Your task to perform on an android device: turn smart compose on in the gmail app Image 0: 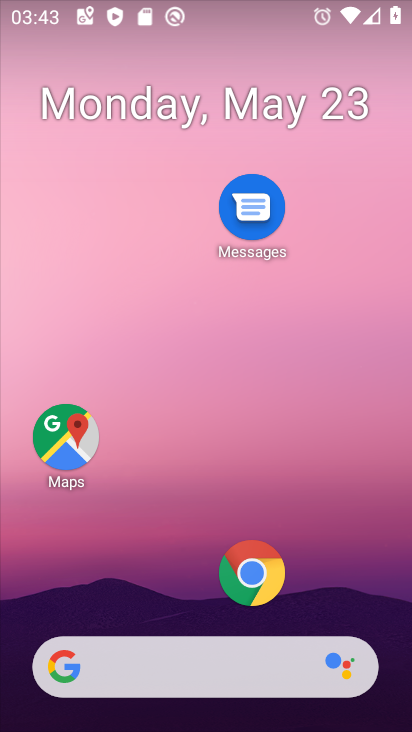
Step 0: drag from (362, 663) to (341, 14)
Your task to perform on an android device: turn smart compose on in the gmail app Image 1: 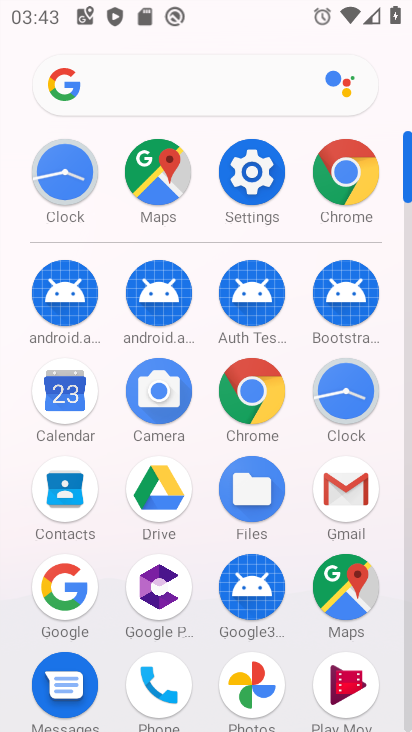
Step 1: click (351, 483)
Your task to perform on an android device: turn smart compose on in the gmail app Image 2: 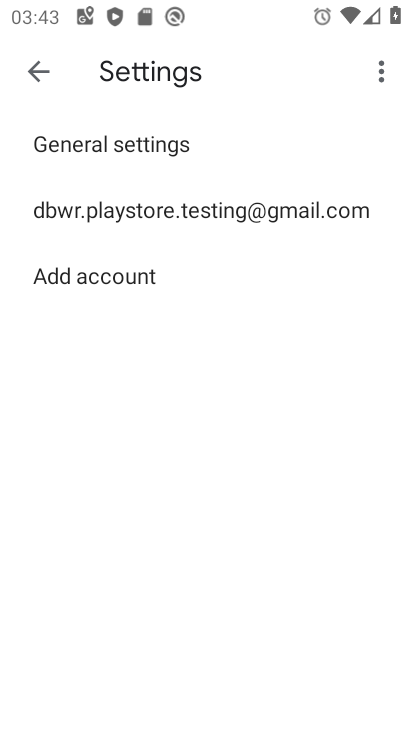
Step 2: press back button
Your task to perform on an android device: turn smart compose on in the gmail app Image 3: 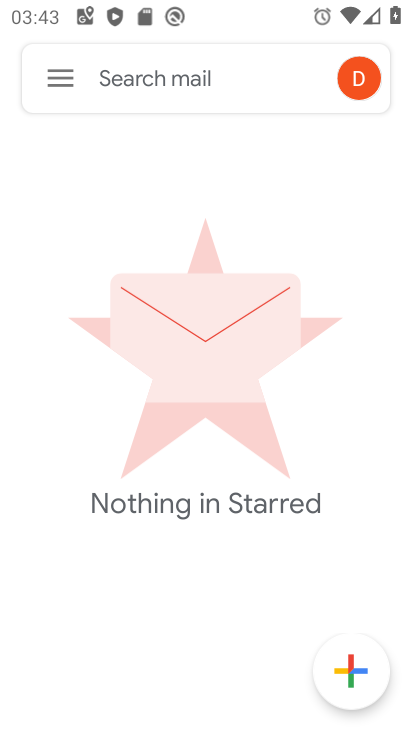
Step 3: click (66, 70)
Your task to perform on an android device: turn smart compose on in the gmail app Image 4: 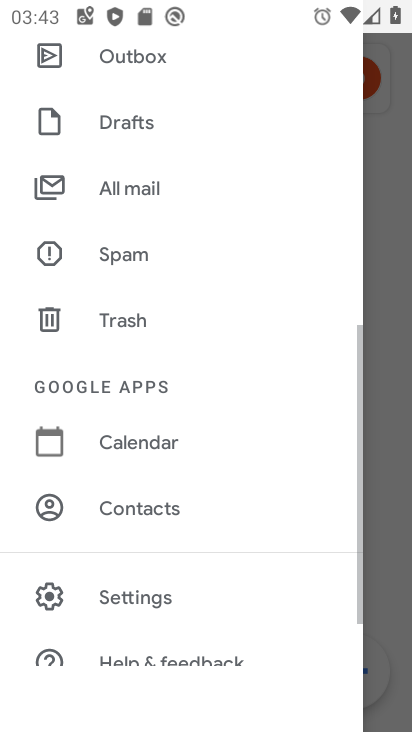
Step 4: click (187, 599)
Your task to perform on an android device: turn smart compose on in the gmail app Image 5: 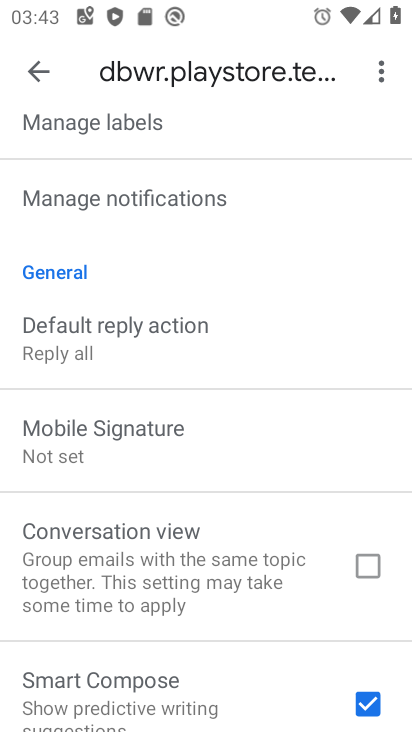
Step 5: task complete